Your task to perform on an android device: Go to Google Image 0: 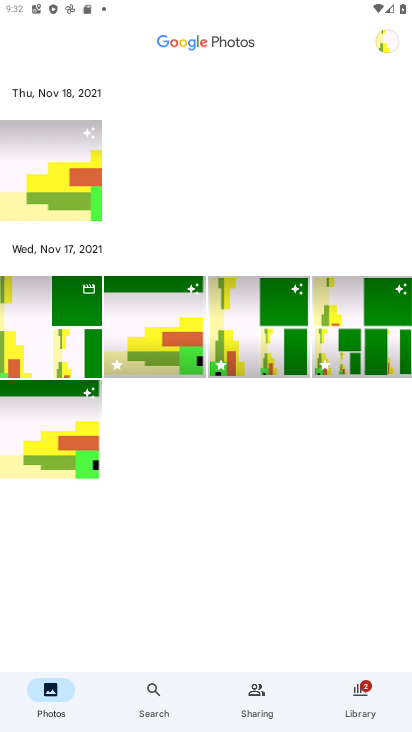
Step 0: press home button
Your task to perform on an android device: Go to Google Image 1: 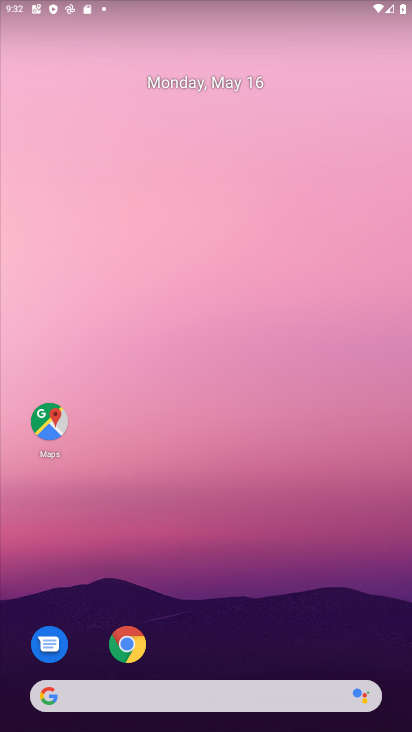
Step 1: drag from (283, 726) to (239, 21)
Your task to perform on an android device: Go to Google Image 2: 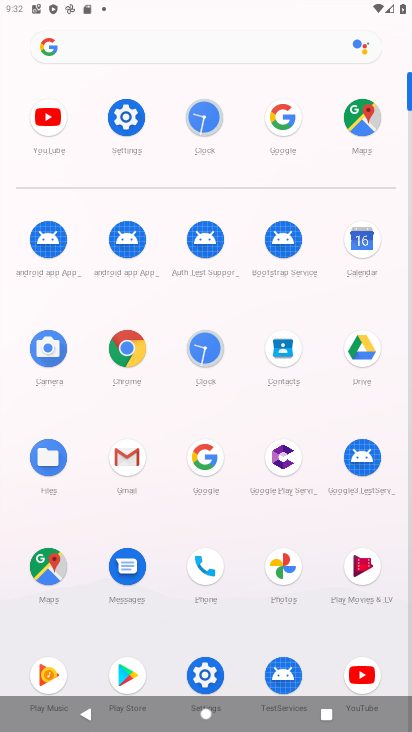
Step 2: click (205, 451)
Your task to perform on an android device: Go to Google Image 3: 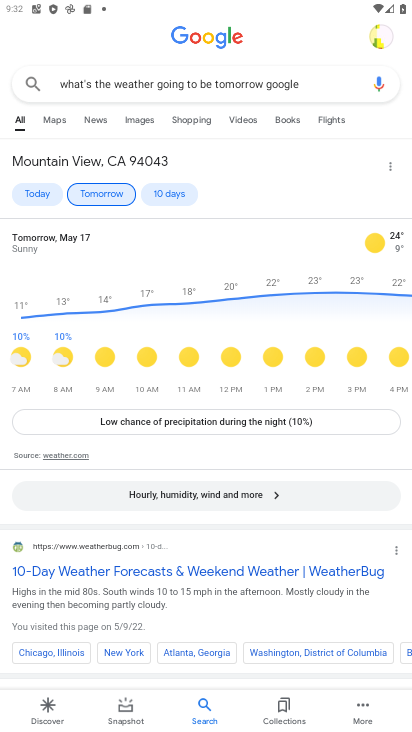
Step 3: task complete